Your task to perform on an android device: What's the weather going to be tomorrow? Image 0: 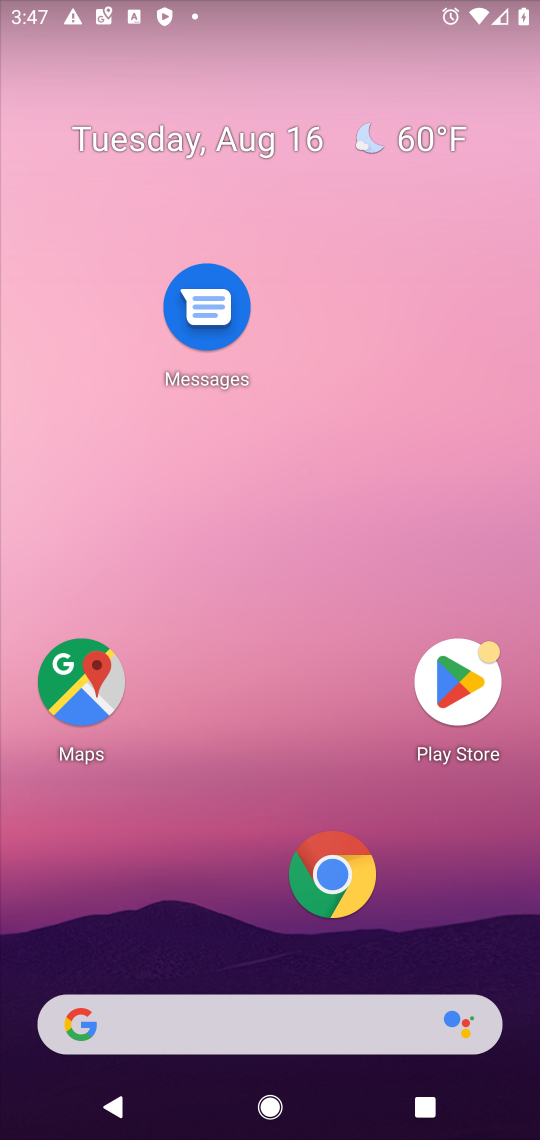
Step 0: click (317, 887)
Your task to perform on an android device: What's the weather going to be tomorrow? Image 1: 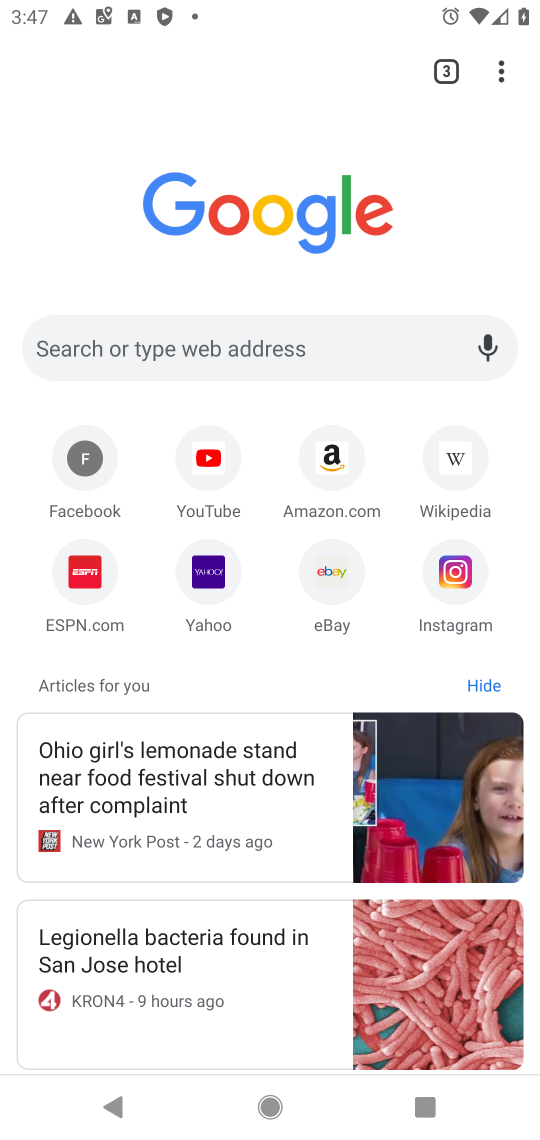
Step 1: click (139, 345)
Your task to perform on an android device: What's the weather going to be tomorrow? Image 2: 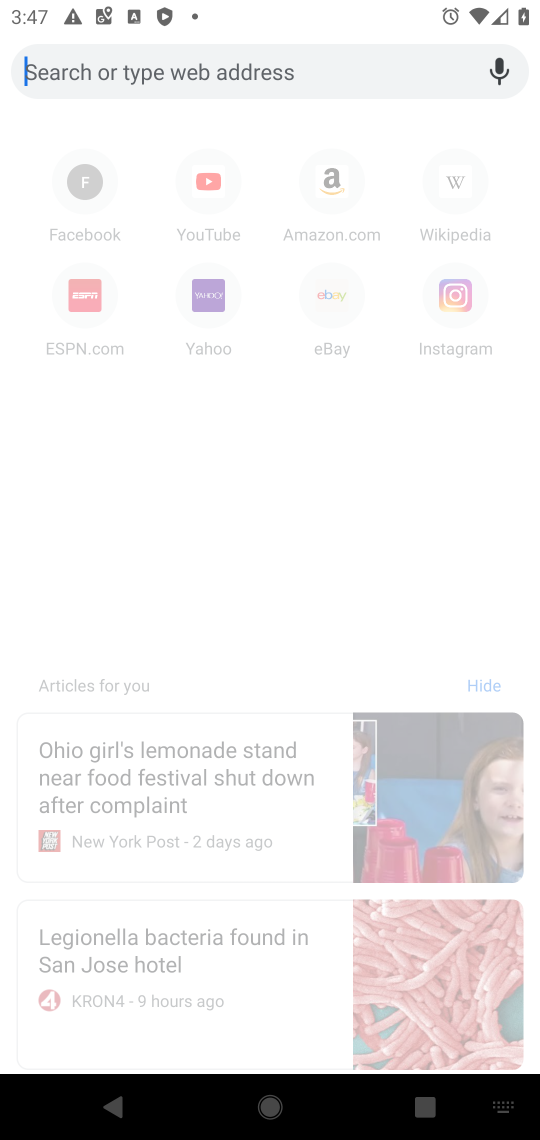
Step 2: click (129, 73)
Your task to perform on an android device: What's the weather going to be tomorrow? Image 3: 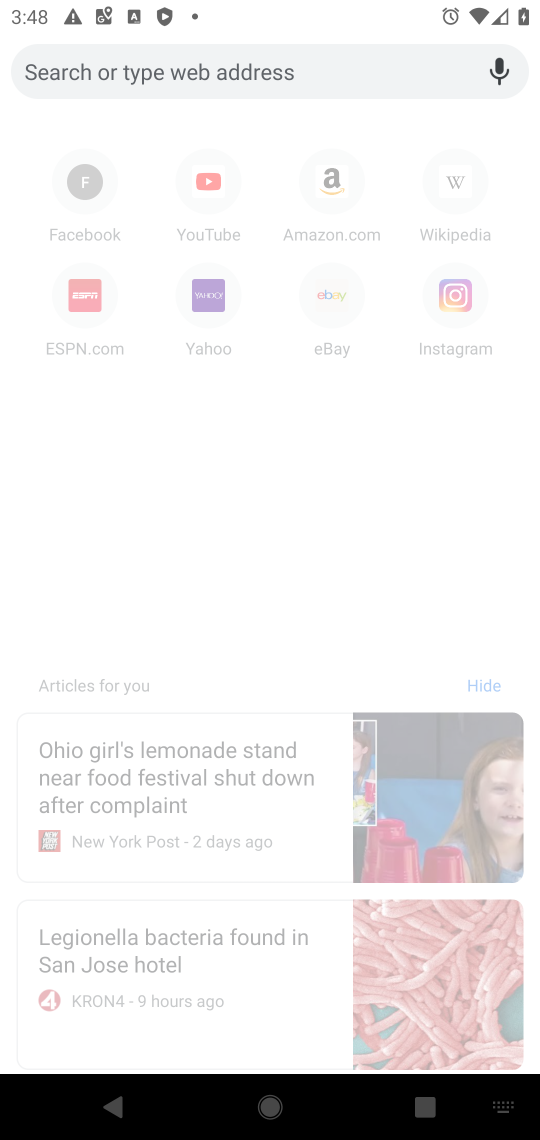
Step 3: press home button
Your task to perform on an android device: What's the weather going to be tomorrow? Image 4: 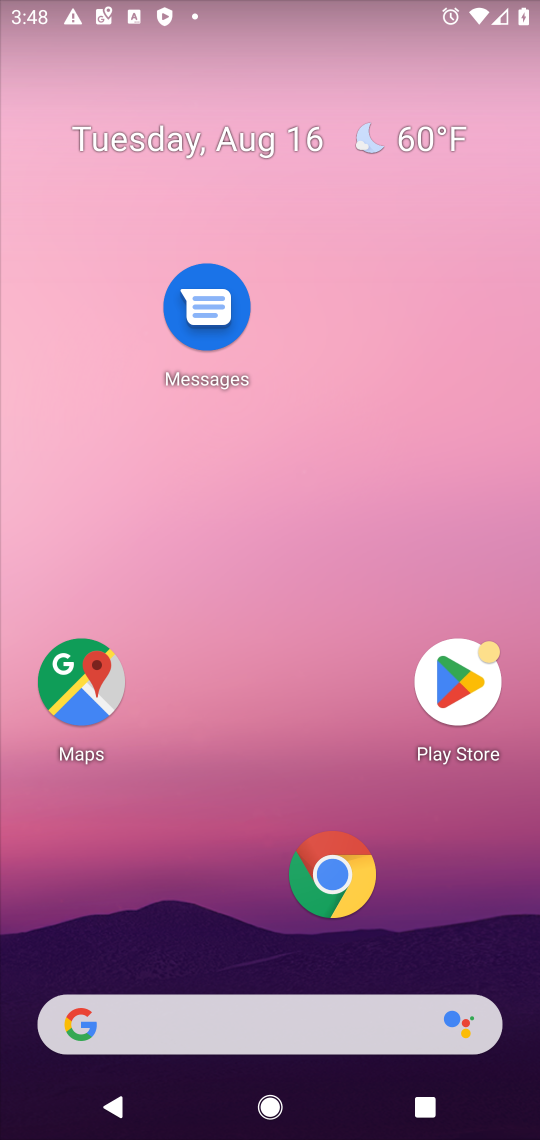
Step 4: click (351, 1029)
Your task to perform on an android device: What's the weather going to be tomorrow? Image 5: 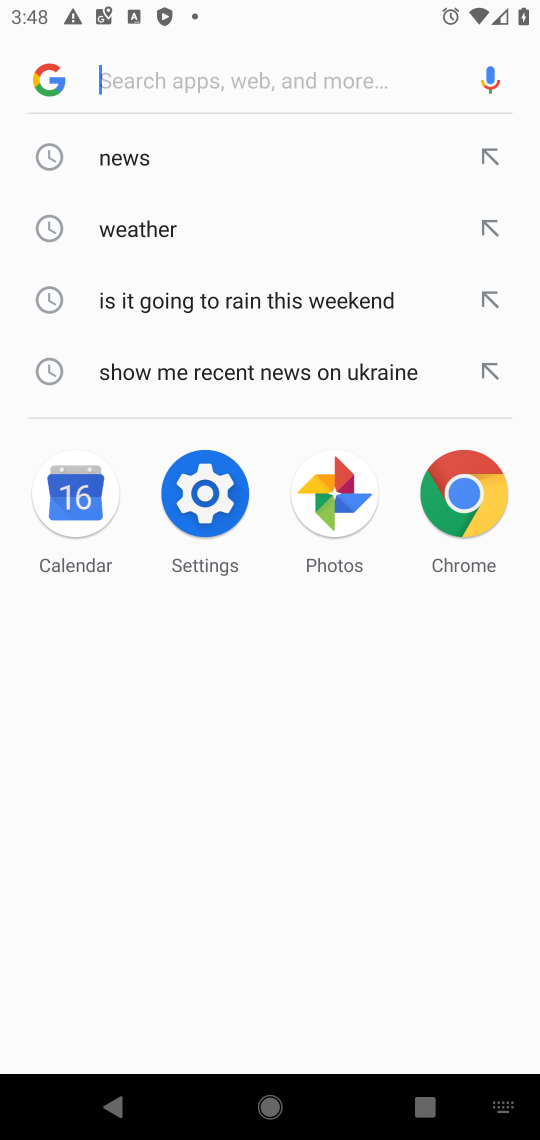
Step 5: click (146, 231)
Your task to perform on an android device: What's the weather going to be tomorrow? Image 6: 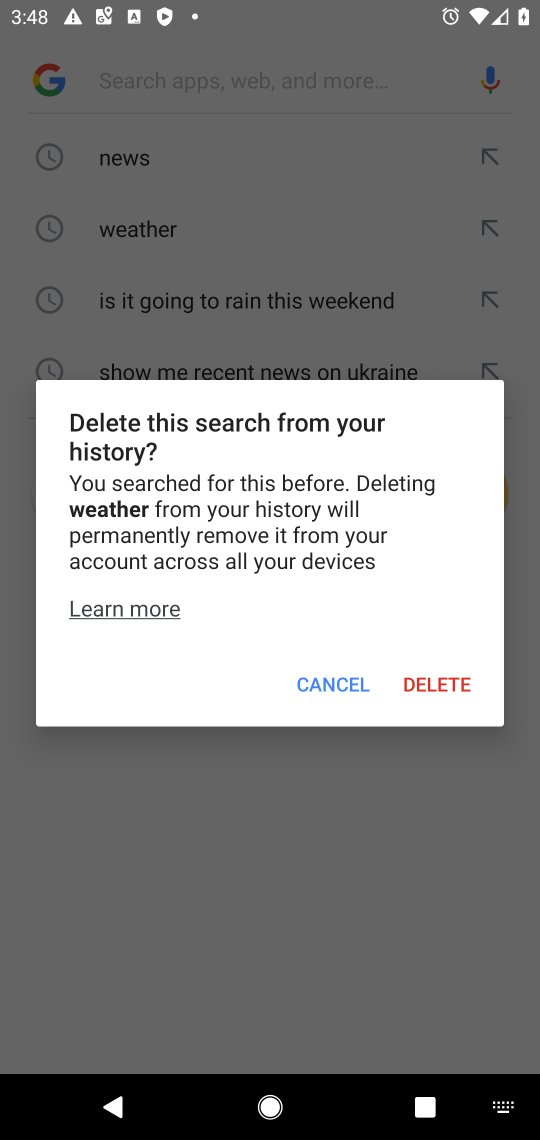
Step 6: click (336, 693)
Your task to perform on an android device: What's the weather going to be tomorrow? Image 7: 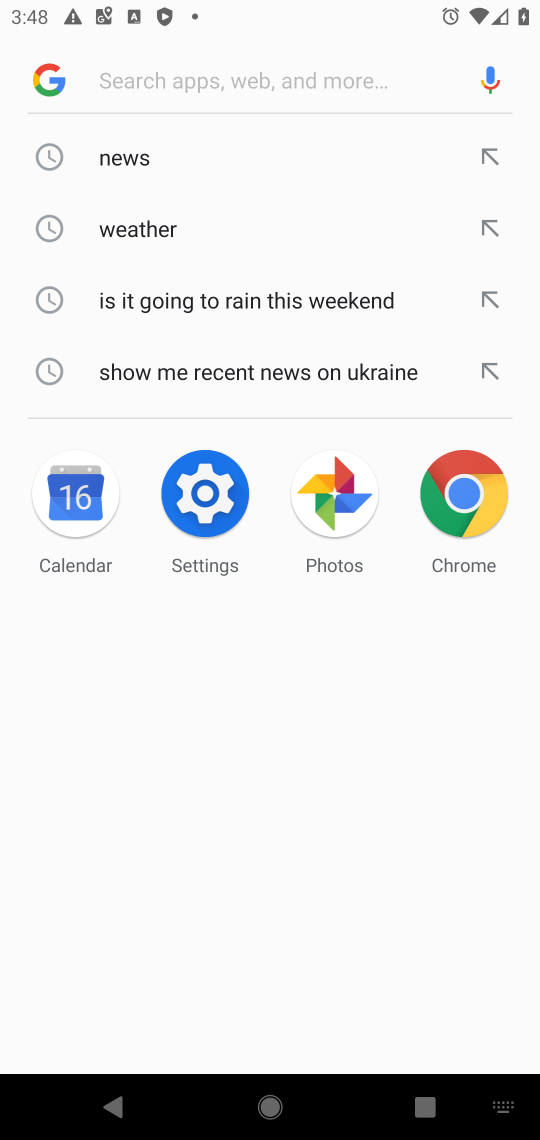
Step 7: click (120, 228)
Your task to perform on an android device: What's the weather going to be tomorrow? Image 8: 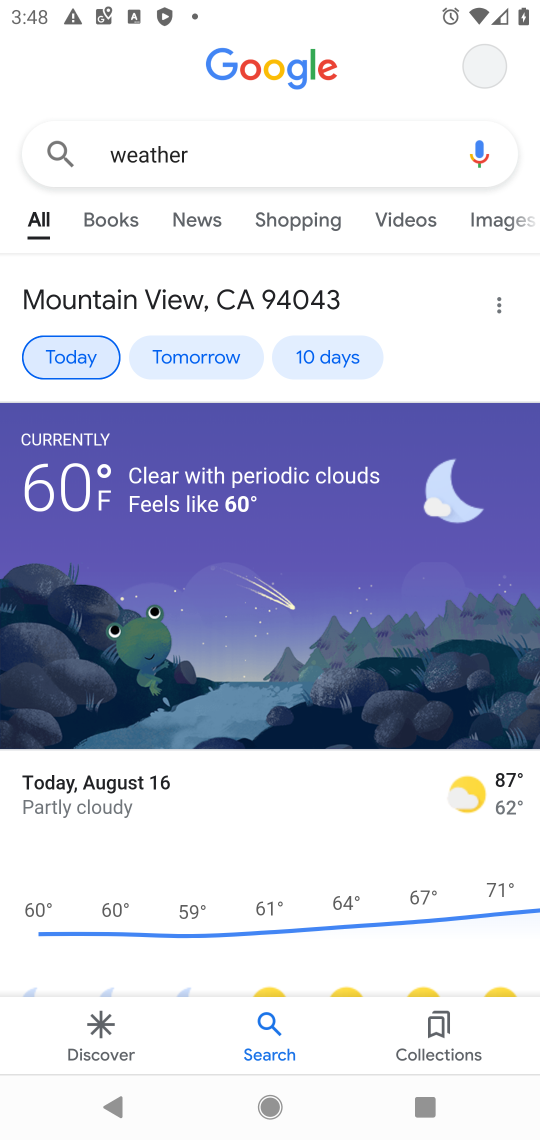
Step 8: task complete